Your task to perform on an android device: Go to accessibility settings Image 0: 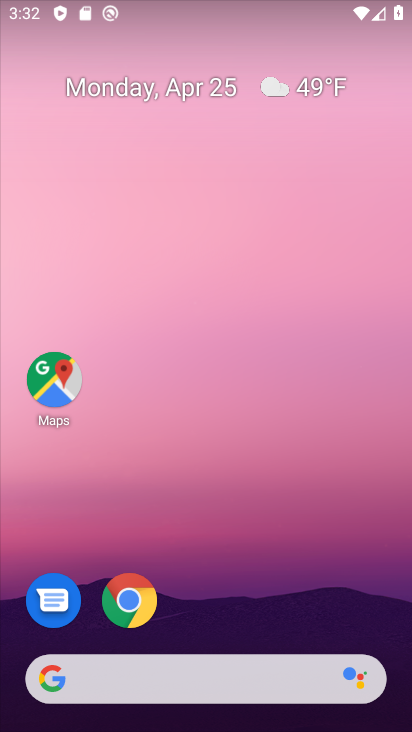
Step 0: drag from (338, 573) to (288, 43)
Your task to perform on an android device: Go to accessibility settings Image 1: 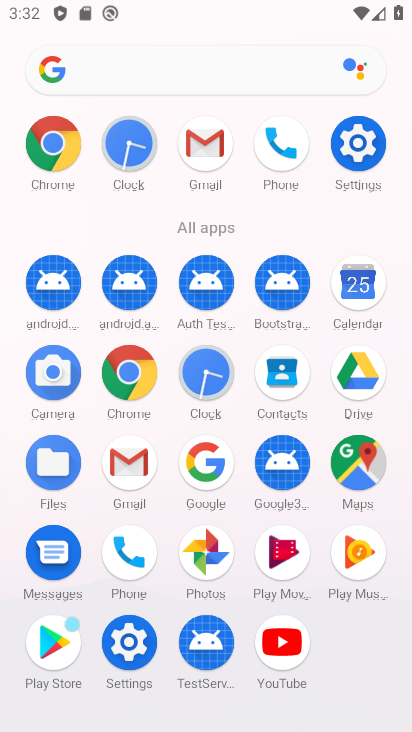
Step 1: click (349, 132)
Your task to perform on an android device: Go to accessibility settings Image 2: 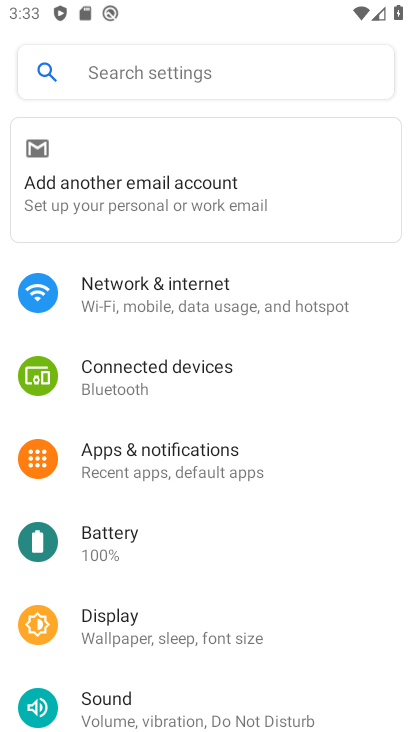
Step 2: drag from (251, 595) to (261, 174)
Your task to perform on an android device: Go to accessibility settings Image 3: 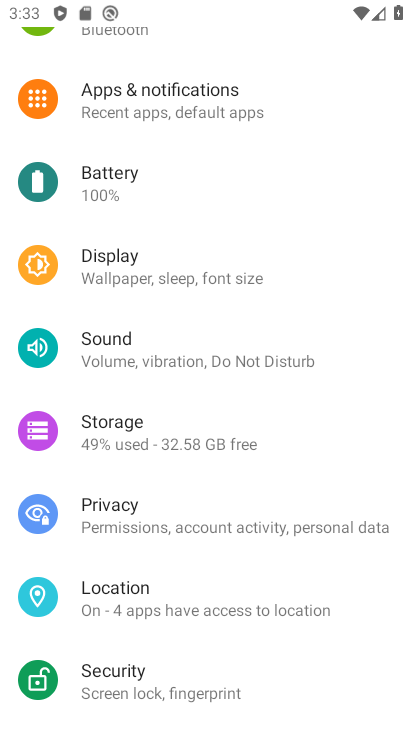
Step 3: drag from (249, 610) to (271, 189)
Your task to perform on an android device: Go to accessibility settings Image 4: 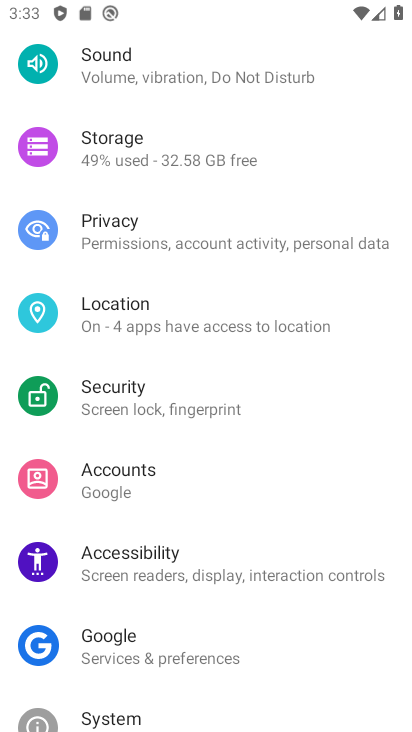
Step 4: click (253, 575)
Your task to perform on an android device: Go to accessibility settings Image 5: 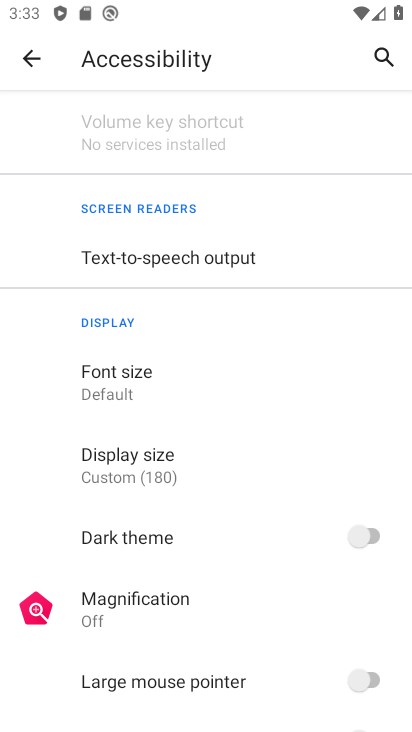
Step 5: task complete